Your task to perform on an android device: Go to Google maps Image 0: 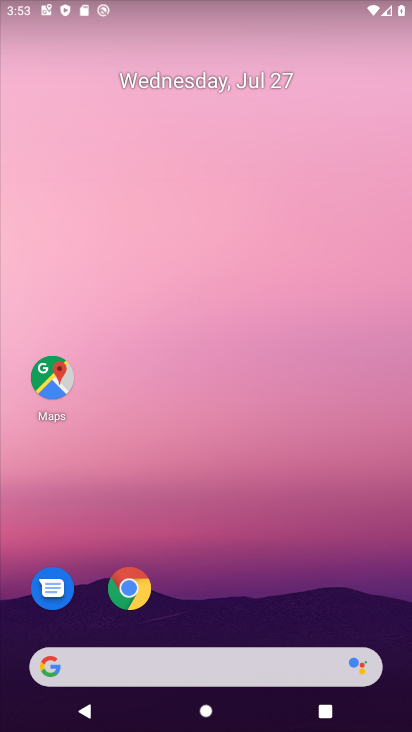
Step 0: press home button
Your task to perform on an android device: Go to Google maps Image 1: 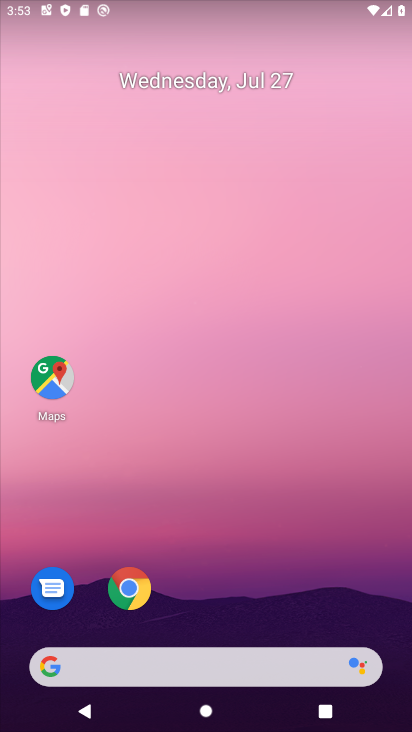
Step 1: drag from (260, 609) to (263, 173)
Your task to perform on an android device: Go to Google maps Image 2: 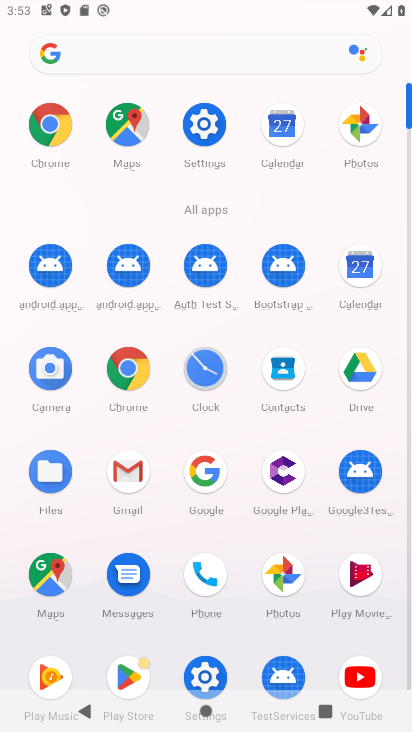
Step 2: click (116, 148)
Your task to perform on an android device: Go to Google maps Image 3: 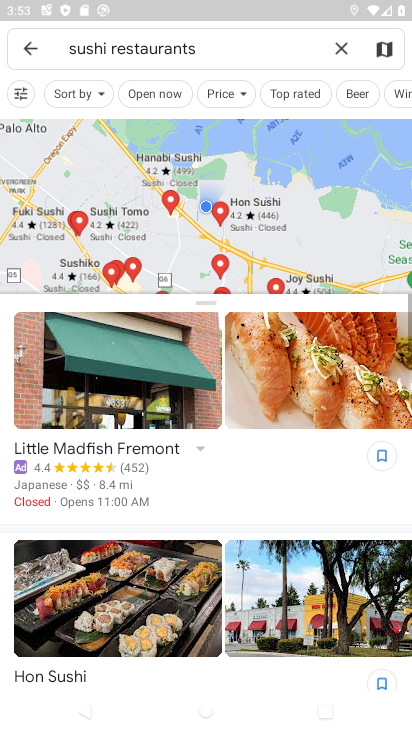
Step 3: click (23, 50)
Your task to perform on an android device: Go to Google maps Image 4: 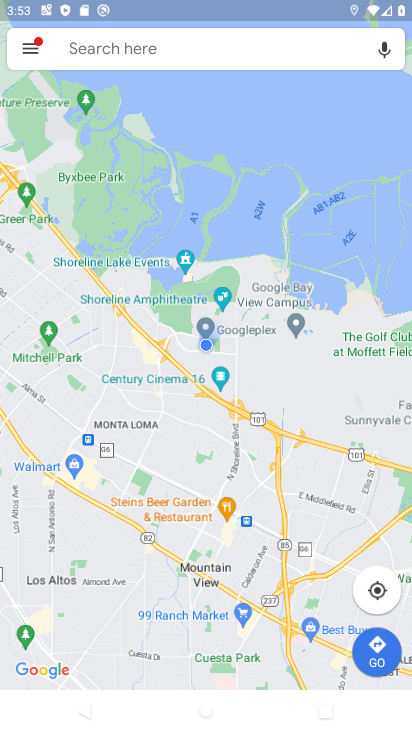
Step 4: task complete